Your task to perform on an android device: When is my next appointment? Image 0: 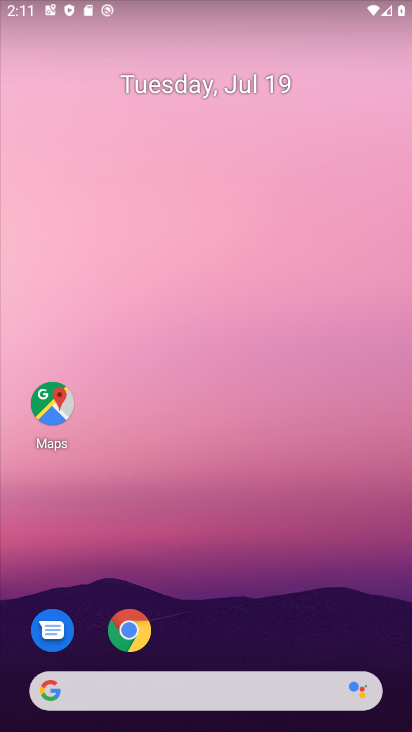
Step 0: drag from (383, 673) to (326, 93)
Your task to perform on an android device: When is my next appointment? Image 1: 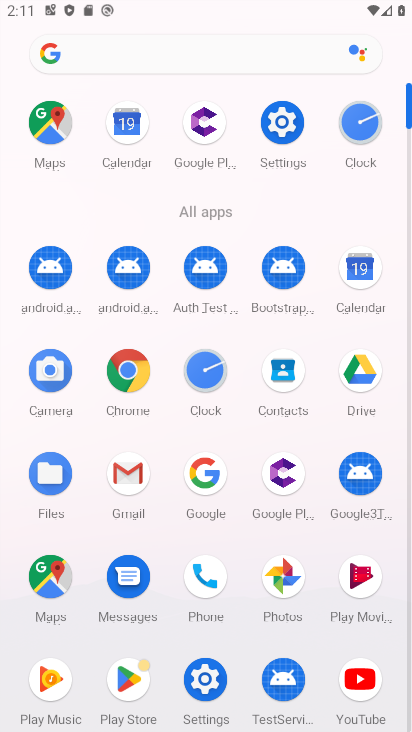
Step 1: click (361, 267)
Your task to perform on an android device: When is my next appointment? Image 2: 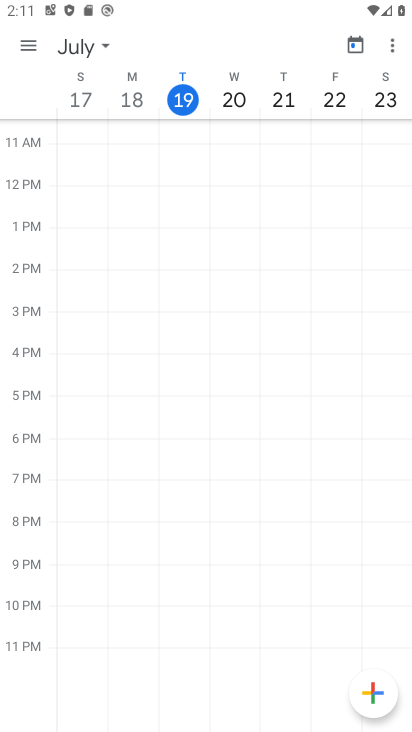
Step 2: click (33, 41)
Your task to perform on an android device: When is my next appointment? Image 3: 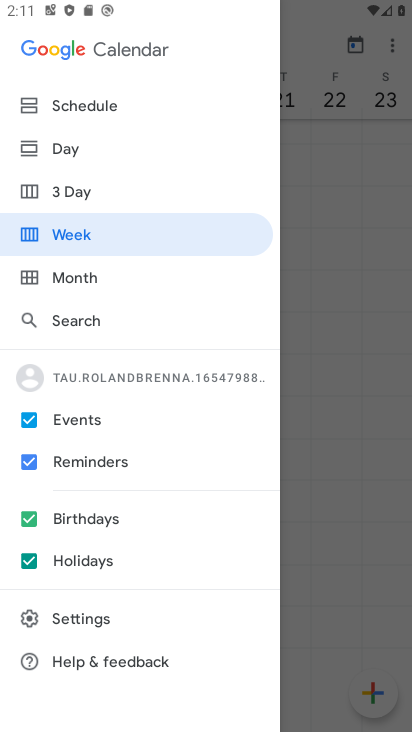
Step 3: click (88, 100)
Your task to perform on an android device: When is my next appointment? Image 4: 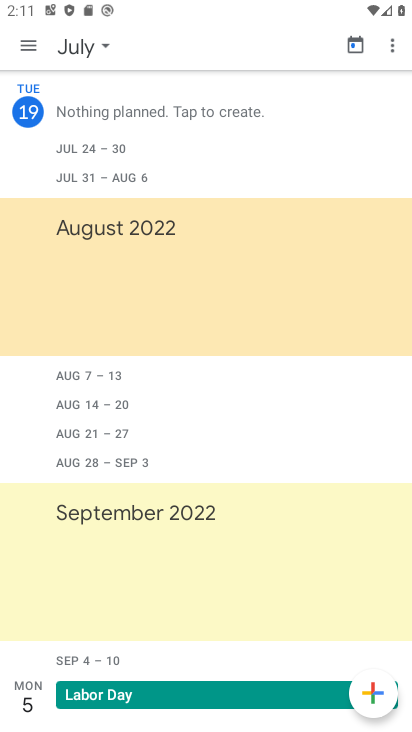
Step 4: task complete